Your task to perform on an android device: turn on improve location accuracy Image 0: 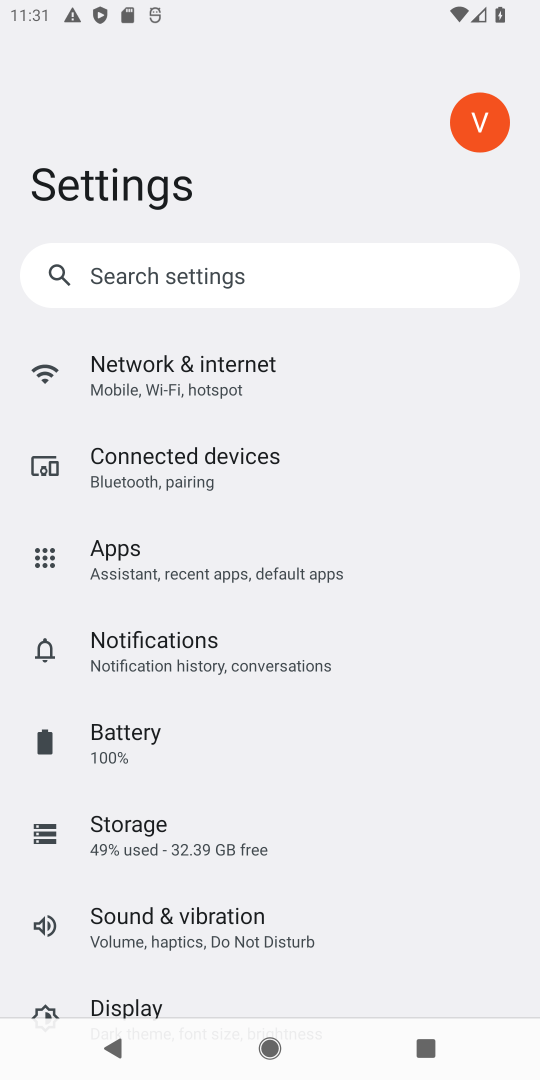
Step 0: press home button
Your task to perform on an android device: turn on improve location accuracy Image 1: 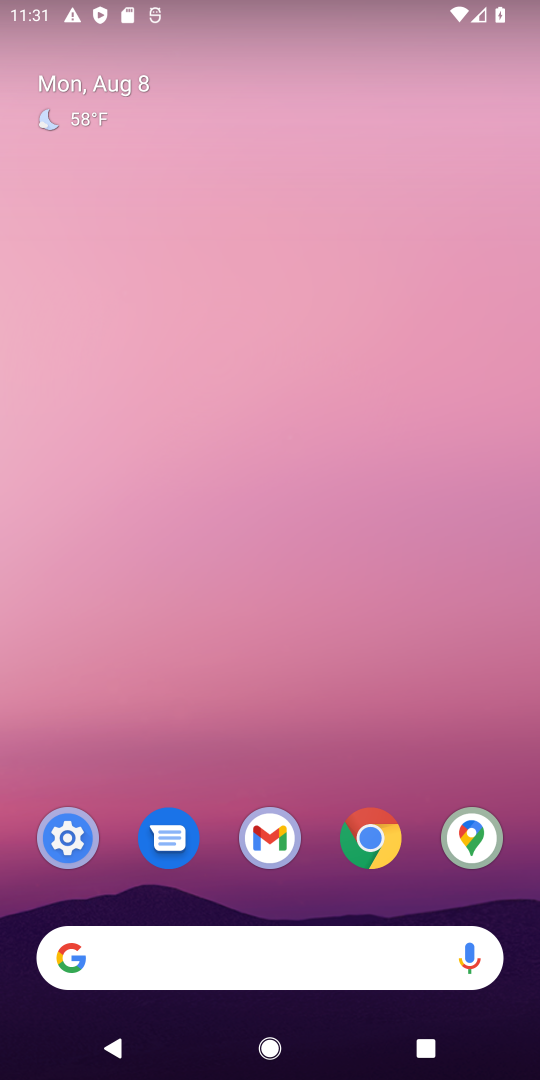
Step 1: drag from (321, 705) to (525, 663)
Your task to perform on an android device: turn on improve location accuracy Image 2: 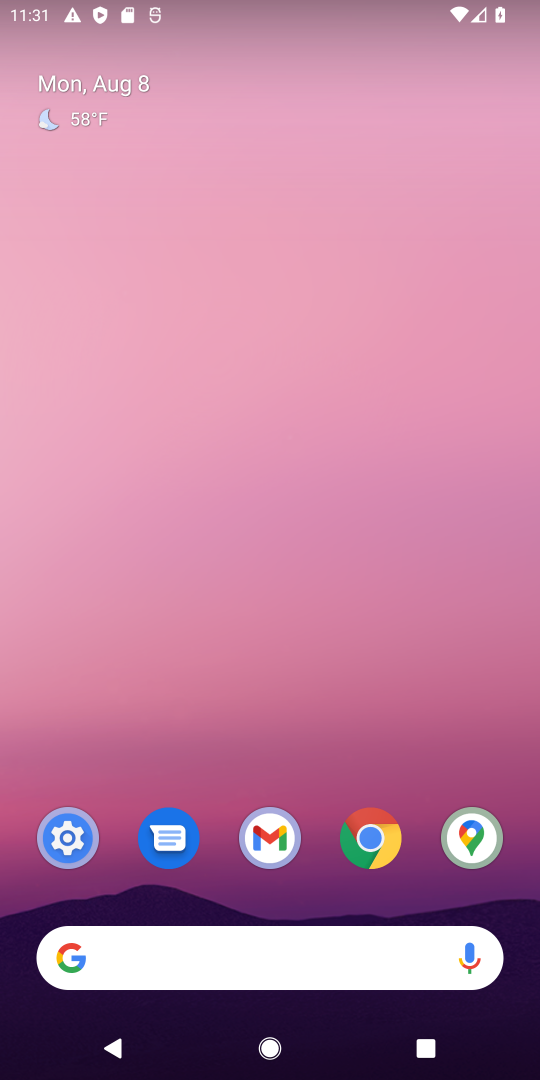
Step 2: drag from (260, 538) to (228, 48)
Your task to perform on an android device: turn on improve location accuracy Image 3: 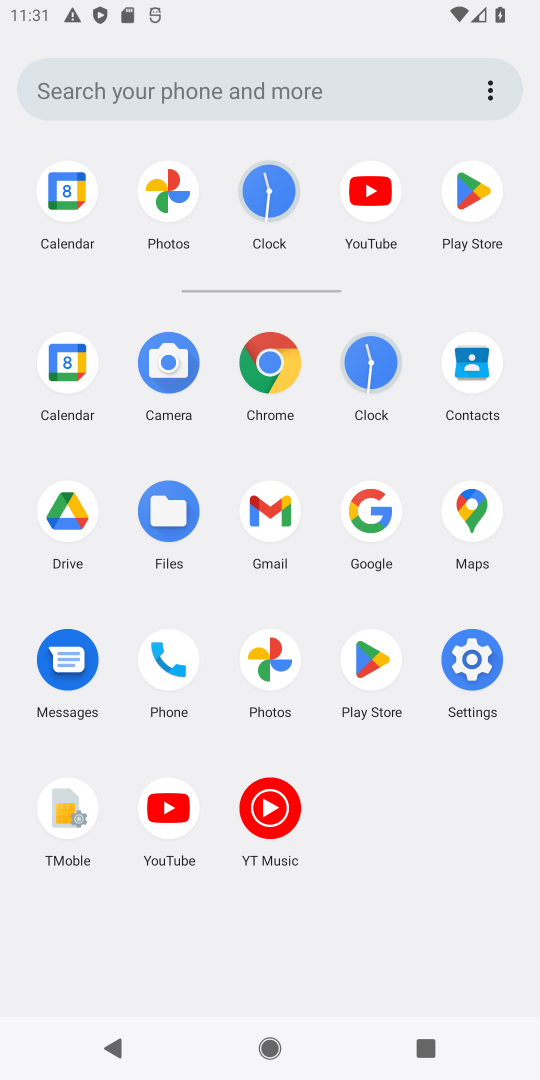
Step 3: click (450, 675)
Your task to perform on an android device: turn on improve location accuracy Image 4: 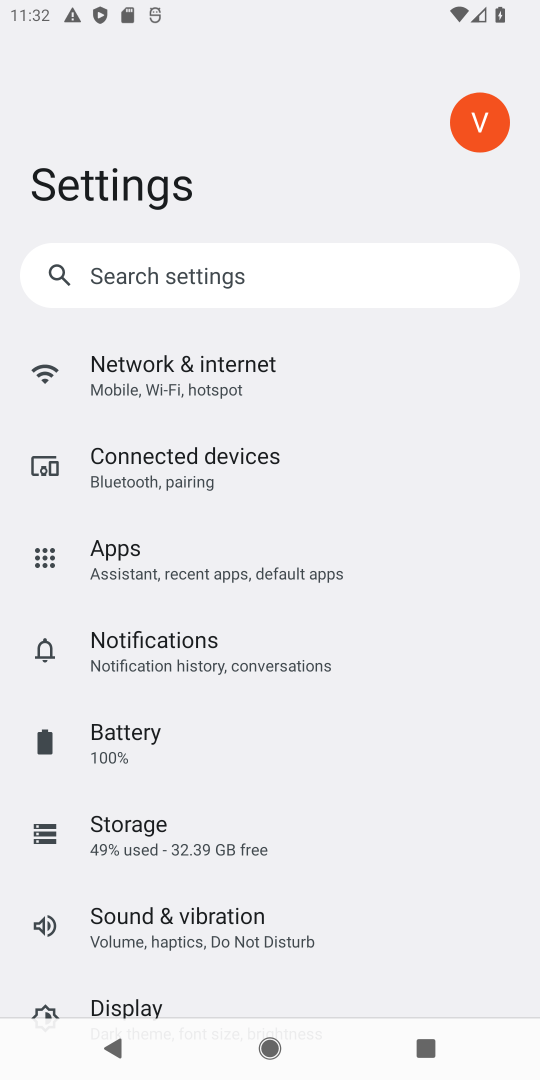
Step 4: drag from (383, 782) to (355, 292)
Your task to perform on an android device: turn on improve location accuracy Image 5: 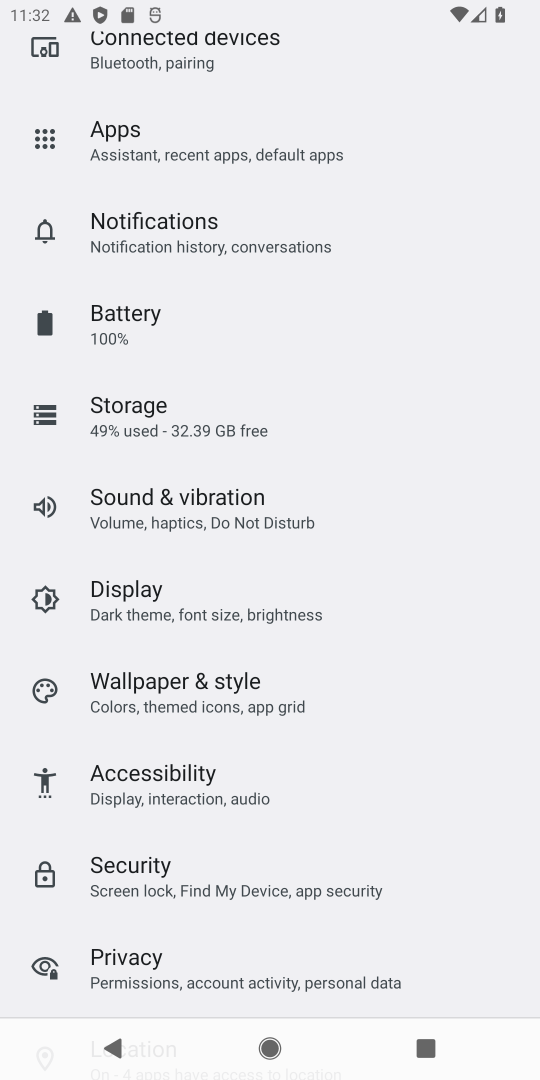
Step 5: drag from (304, 205) to (269, 7)
Your task to perform on an android device: turn on improve location accuracy Image 6: 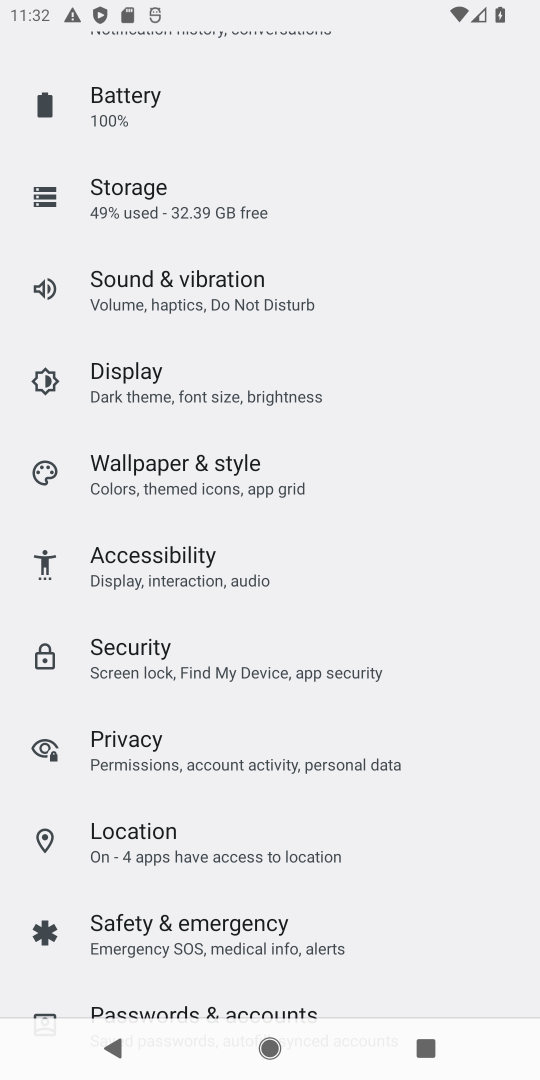
Step 6: click (237, 848)
Your task to perform on an android device: turn on improve location accuracy Image 7: 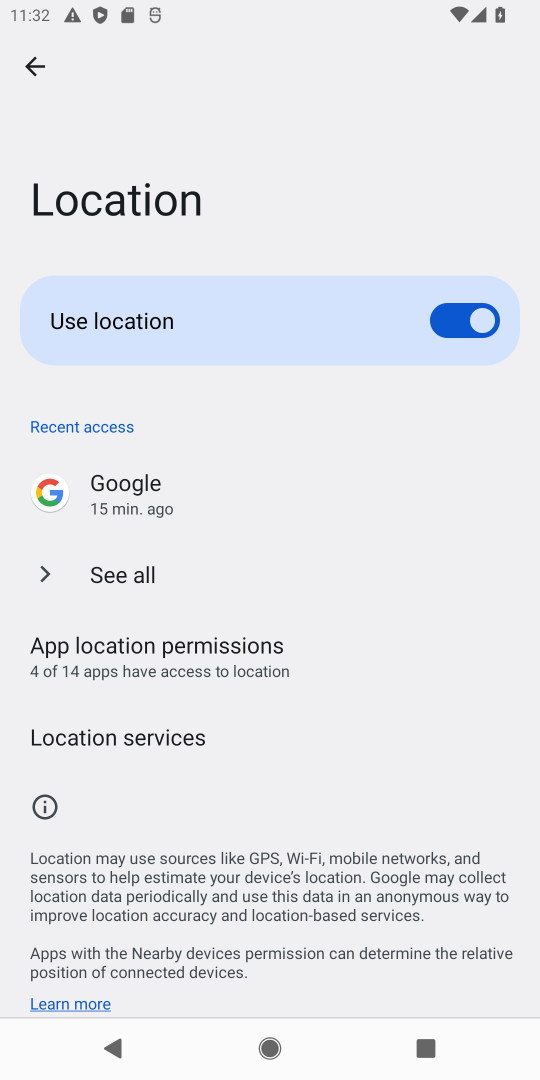
Step 7: drag from (309, 817) to (272, 200)
Your task to perform on an android device: turn on improve location accuracy Image 8: 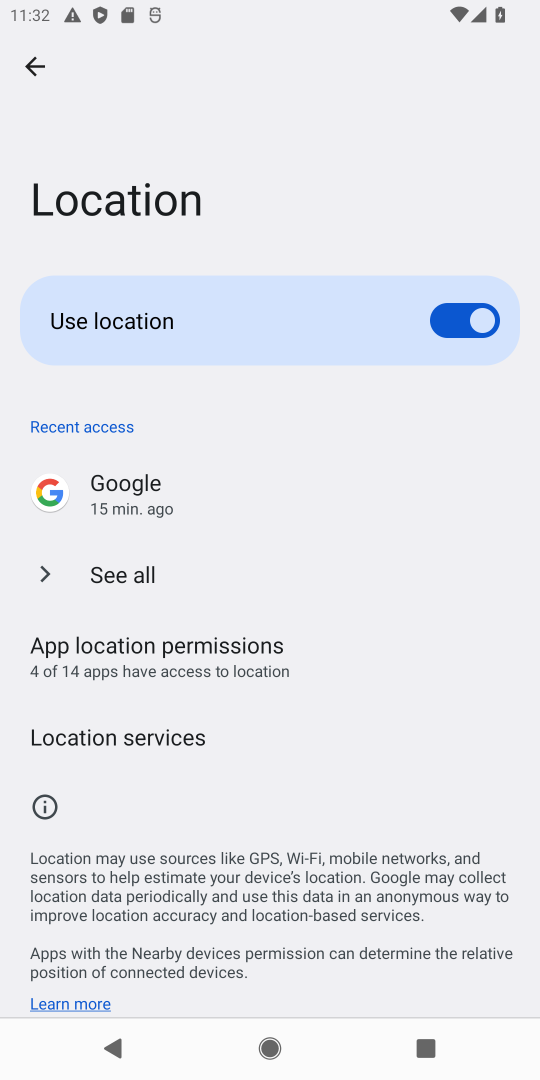
Step 8: click (120, 740)
Your task to perform on an android device: turn on improve location accuracy Image 9: 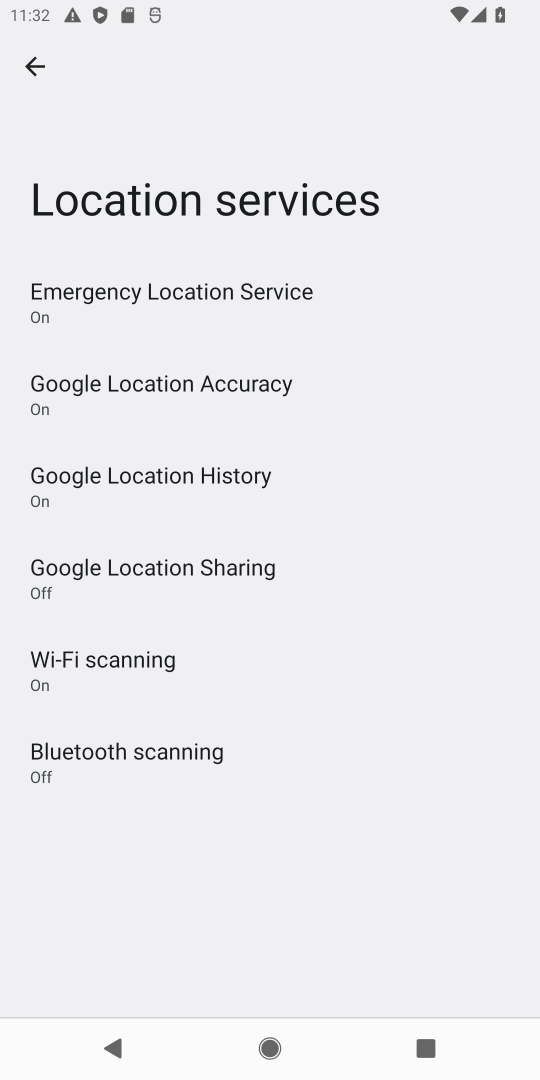
Step 9: click (256, 384)
Your task to perform on an android device: turn on improve location accuracy Image 10: 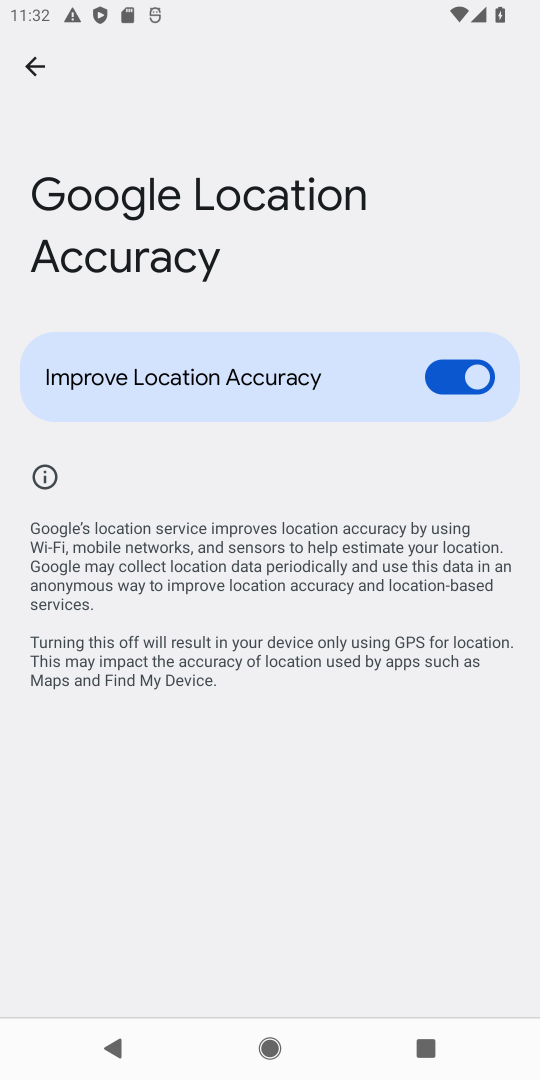
Step 10: task complete